Your task to perform on an android device: open chrome privacy settings Image 0: 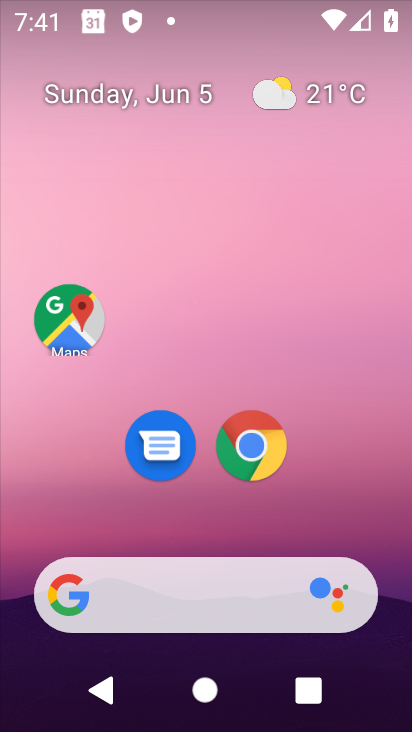
Step 0: click (265, 453)
Your task to perform on an android device: open chrome privacy settings Image 1: 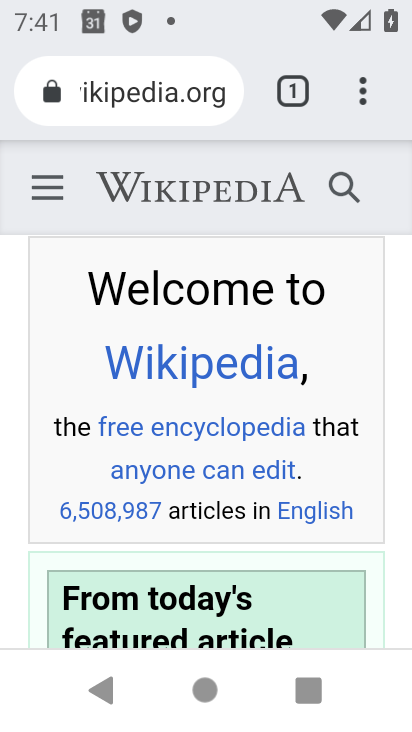
Step 1: drag from (365, 84) to (211, 469)
Your task to perform on an android device: open chrome privacy settings Image 2: 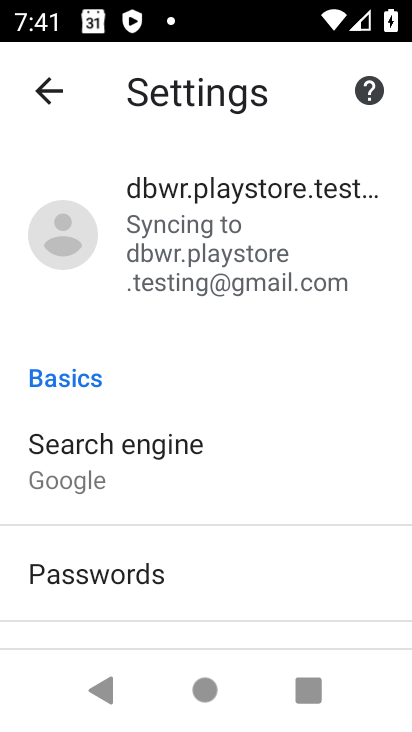
Step 2: drag from (326, 488) to (276, 112)
Your task to perform on an android device: open chrome privacy settings Image 3: 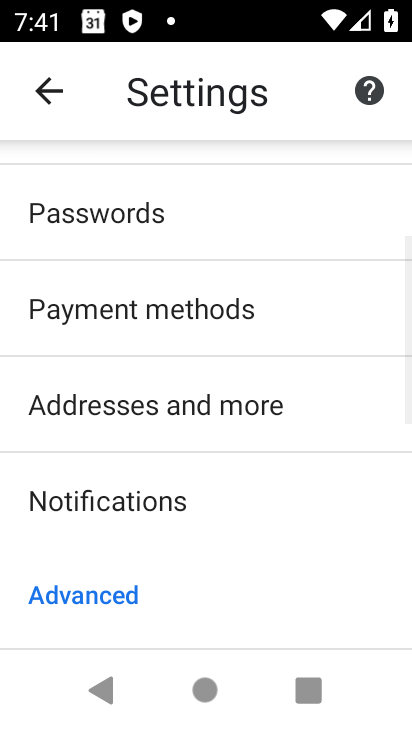
Step 3: drag from (263, 609) to (249, 324)
Your task to perform on an android device: open chrome privacy settings Image 4: 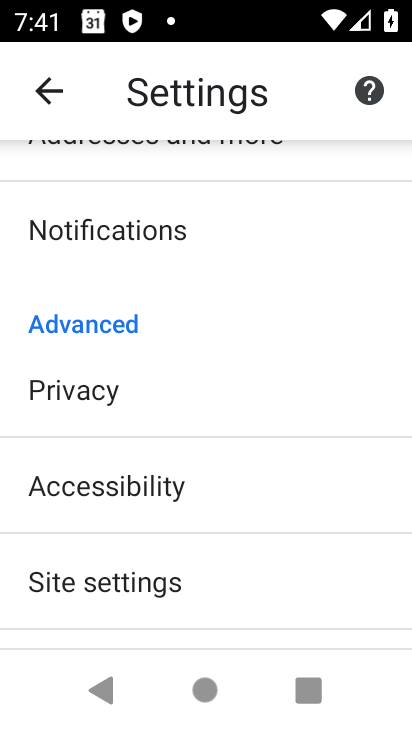
Step 4: click (76, 389)
Your task to perform on an android device: open chrome privacy settings Image 5: 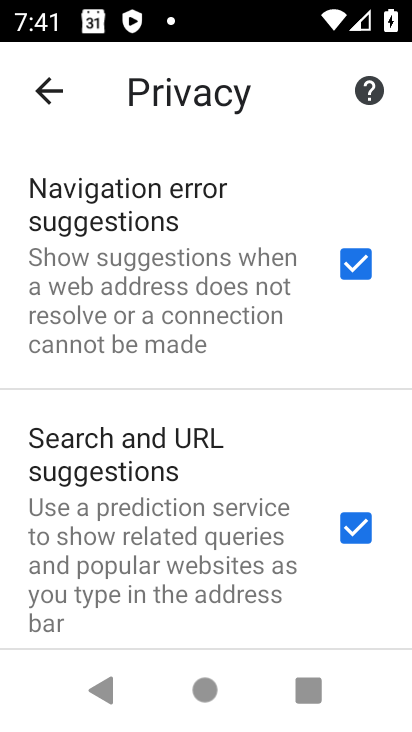
Step 5: task complete